Your task to perform on an android device: install app "Google Drive" Image 0: 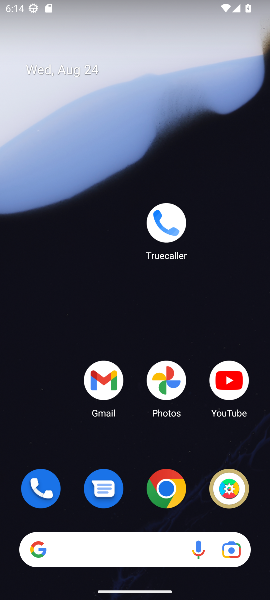
Step 0: drag from (135, 310) to (136, 133)
Your task to perform on an android device: install app "Google Drive" Image 1: 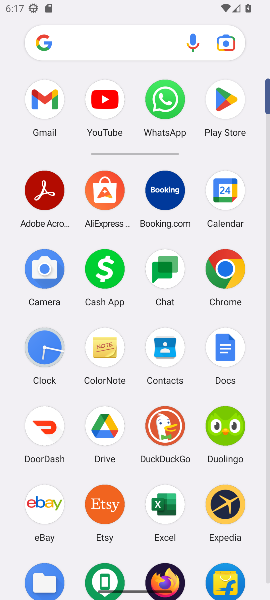
Step 1: click (104, 419)
Your task to perform on an android device: install app "Google Drive" Image 2: 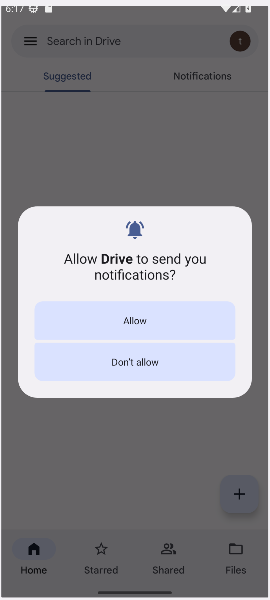
Step 2: task complete